Your task to perform on an android device: Go to notification settings Image 0: 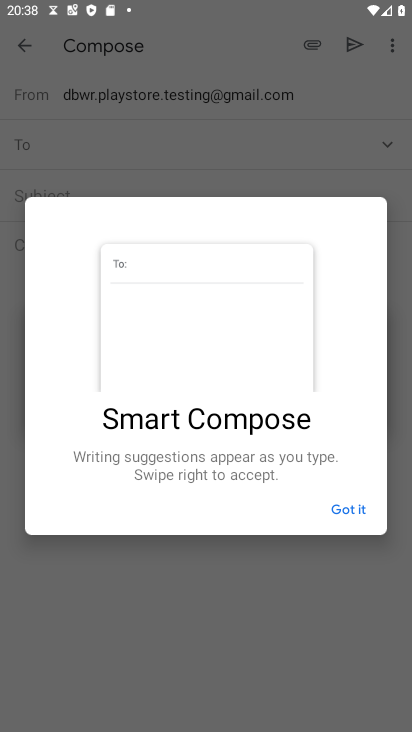
Step 0: press home button
Your task to perform on an android device: Go to notification settings Image 1: 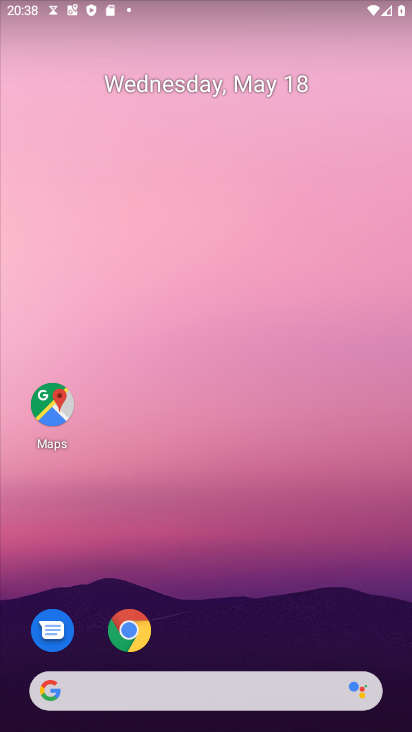
Step 1: drag from (195, 688) to (300, 65)
Your task to perform on an android device: Go to notification settings Image 2: 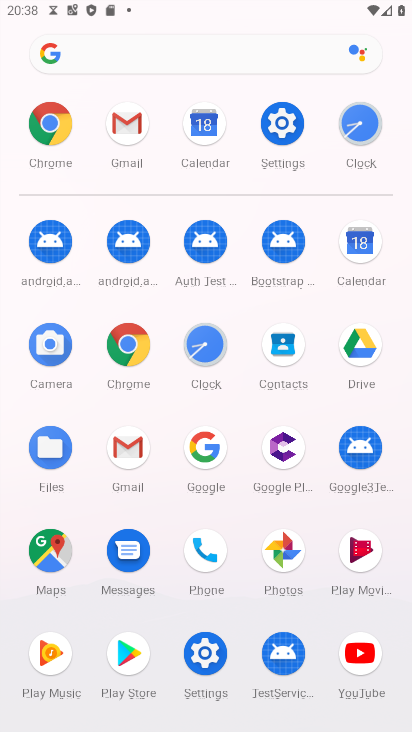
Step 2: click (277, 128)
Your task to perform on an android device: Go to notification settings Image 3: 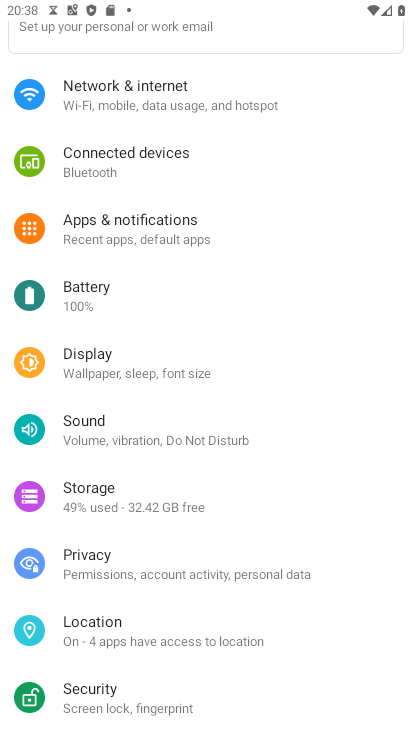
Step 3: click (169, 231)
Your task to perform on an android device: Go to notification settings Image 4: 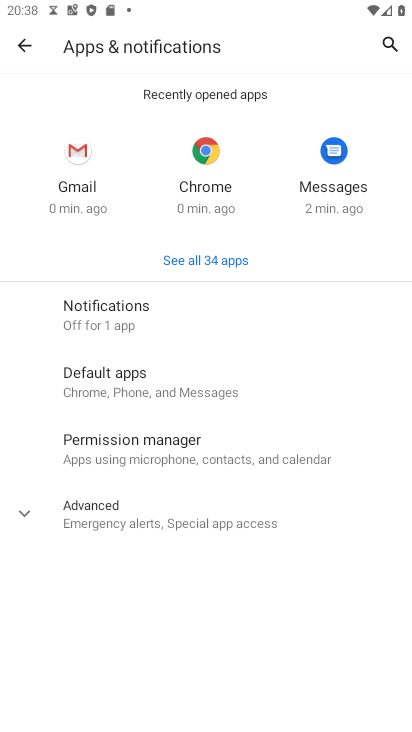
Step 4: click (124, 305)
Your task to perform on an android device: Go to notification settings Image 5: 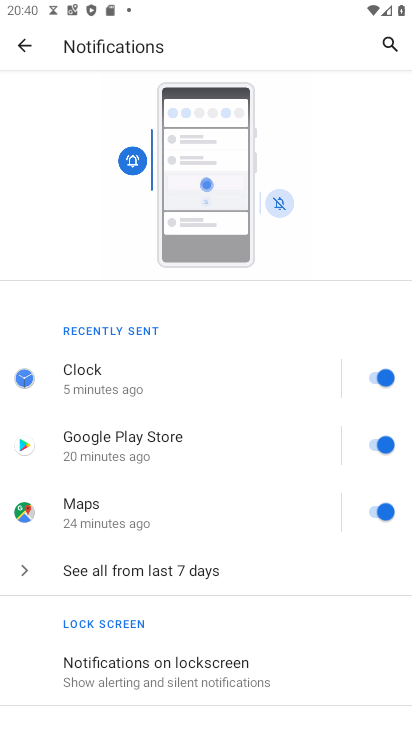
Step 5: task complete